Your task to perform on an android device: Go to battery settings Image 0: 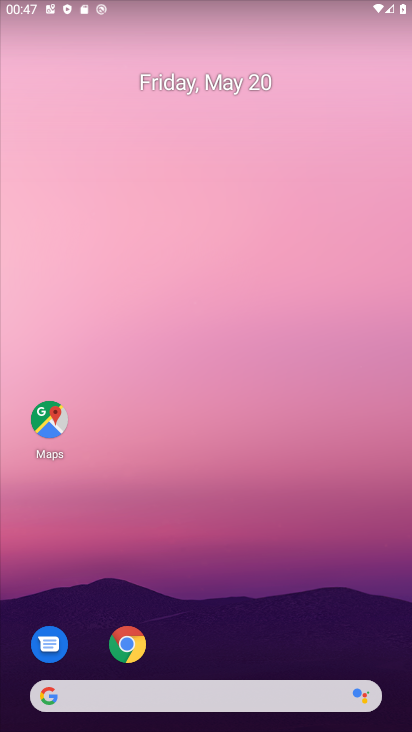
Step 0: drag from (339, 641) to (304, 5)
Your task to perform on an android device: Go to battery settings Image 1: 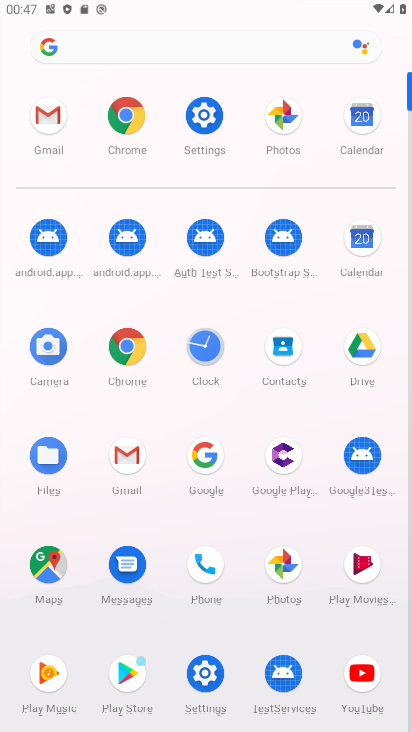
Step 1: click (203, 120)
Your task to perform on an android device: Go to battery settings Image 2: 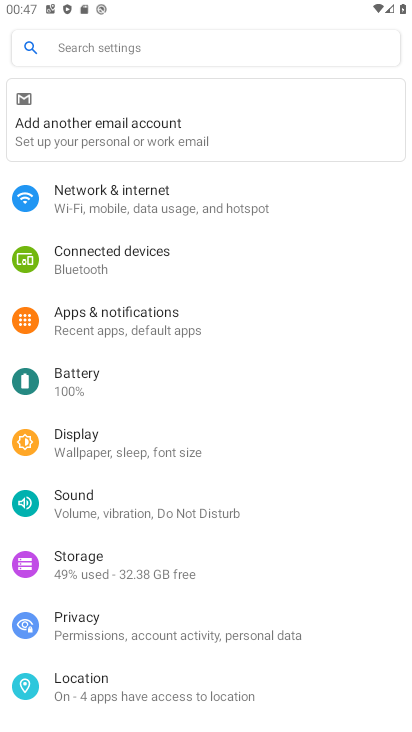
Step 2: click (68, 381)
Your task to perform on an android device: Go to battery settings Image 3: 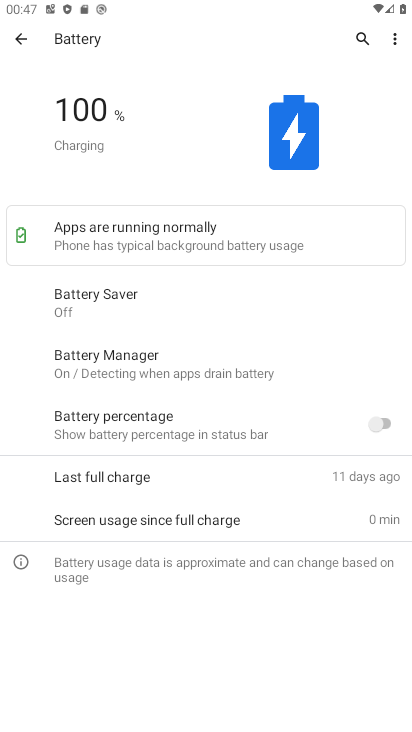
Step 3: task complete